Your task to perform on an android device: change the clock display to digital Image 0: 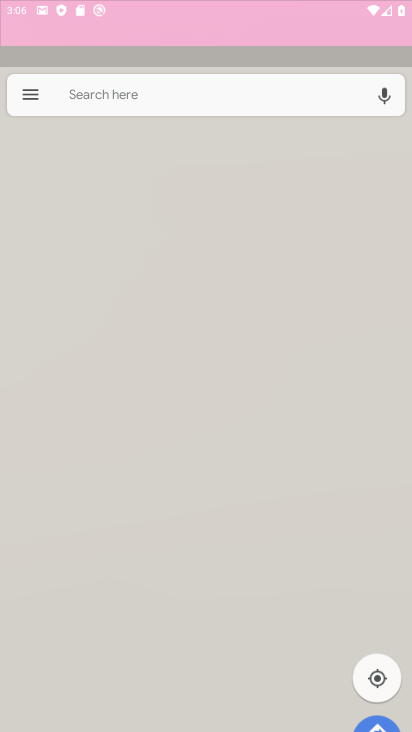
Step 0: click (126, 629)
Your task to perform on an android device: change the clock display to digital Image 1: 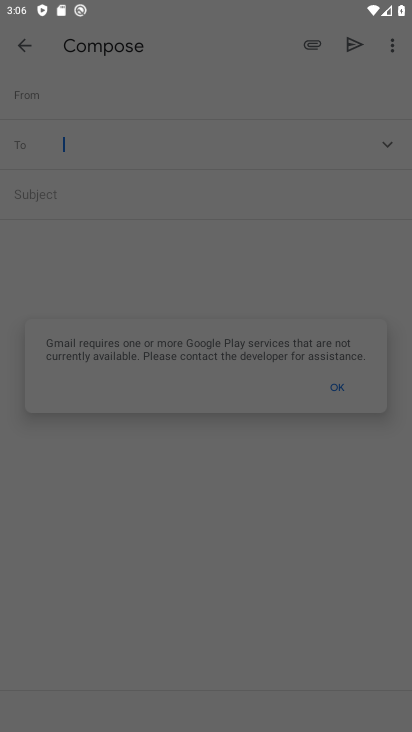
Step 1: press back button
Your task to perform on an android device: change the clock display to digital Image 2: 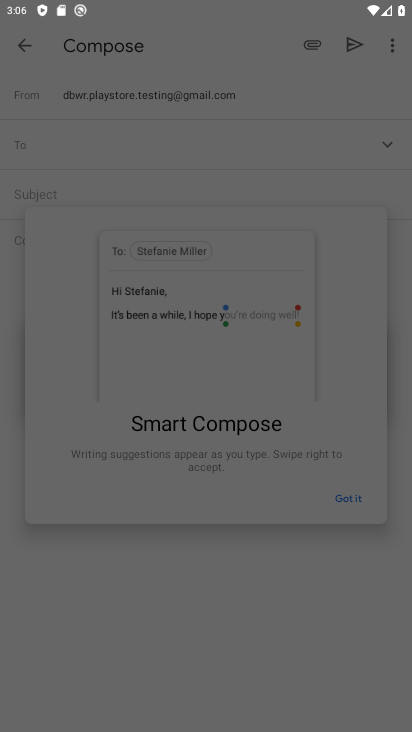
Step 2: press home button
Your task to perform on an android device: change the clock display to digital Image 3: 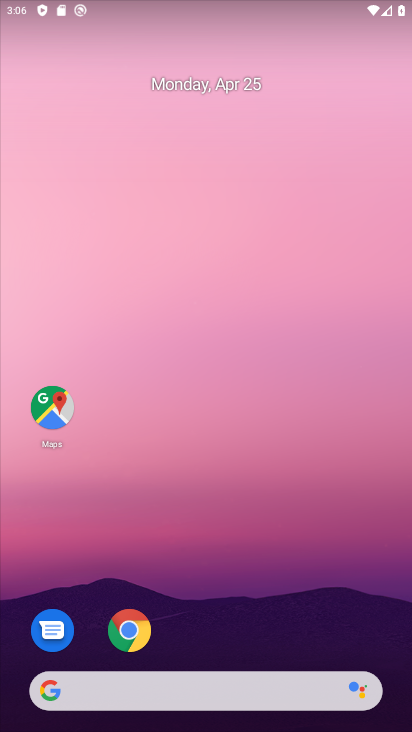
Step 3: drag from (165, 651) to (178, 225)
Your task to perform on an android device: change the clock display to digital Image 4: 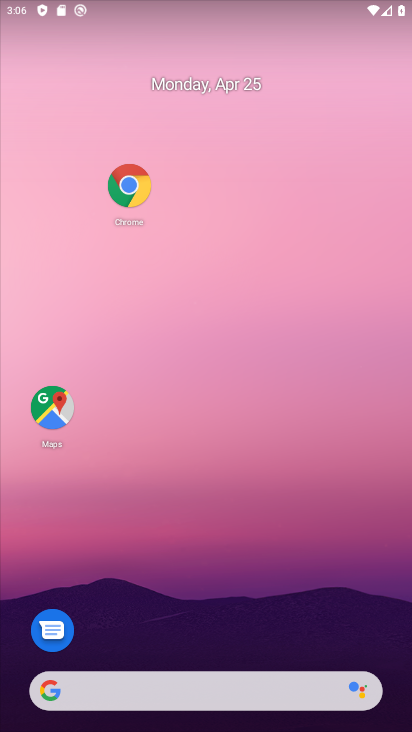
Step 4: drag from (206, 649) to (97, 2)
Your task to perform on an android device: change the clock display to digital Image 5: 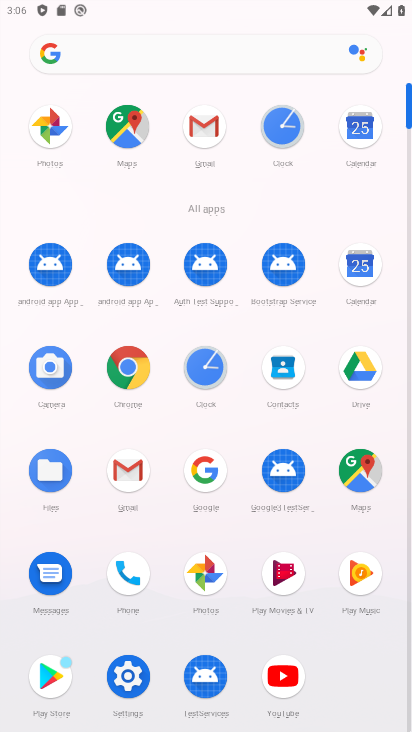
Step 5: click (199, 367)
Your task to perform on an android device: change the clock display to digital Image 6: 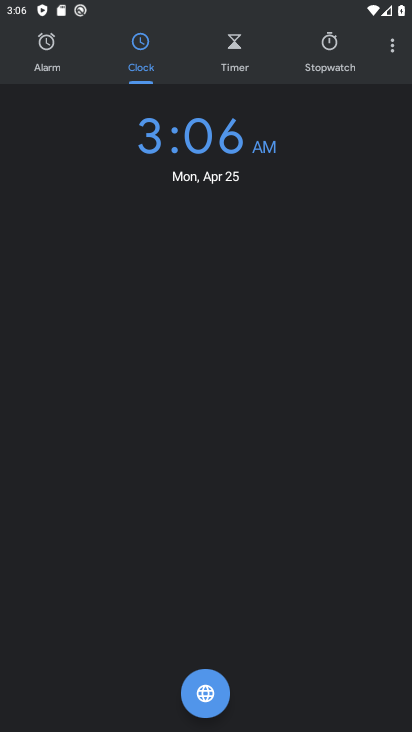
Step 6: click (393, 50)
Your task to perform on an android device: change the clock display to digital Image 7: 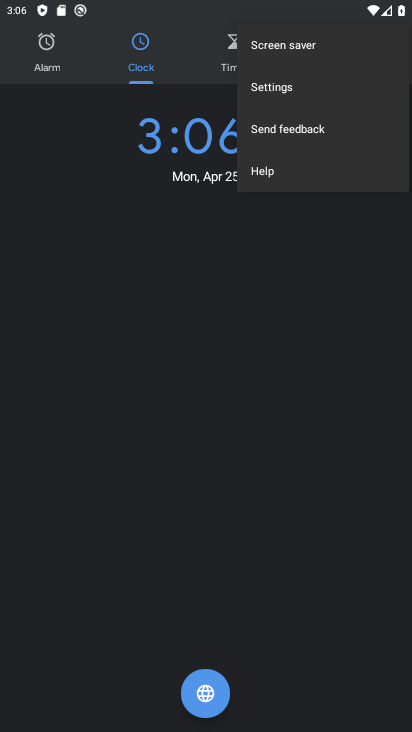
Step 7: click (356, 90)
Your task to perform on an android device: change the clock display to digital Image 8: 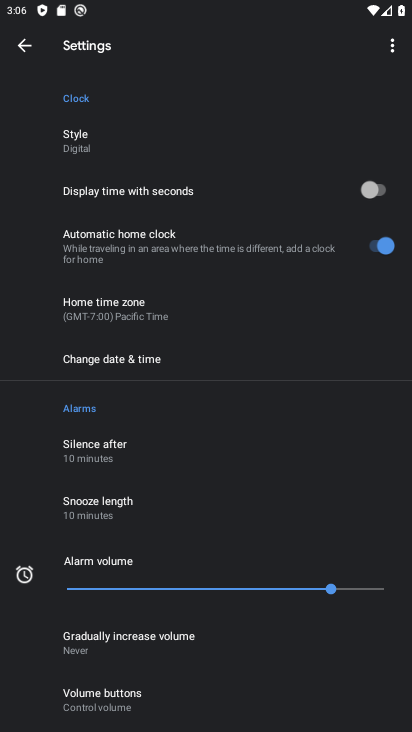
Step 8: drag from (115, 659) to (137, 336)
Your task to perform on an android device: change the clock display to digital Image 9: 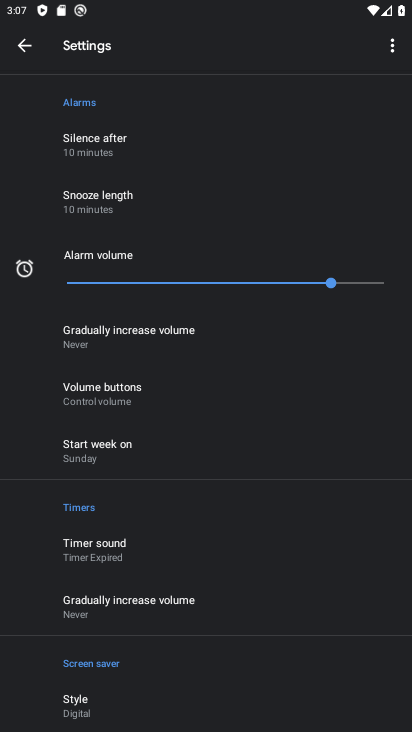
Step 9: drag from (125, 619) to (120, 364)
Your task to perform on an android device: change the clock display to digital Image 10: 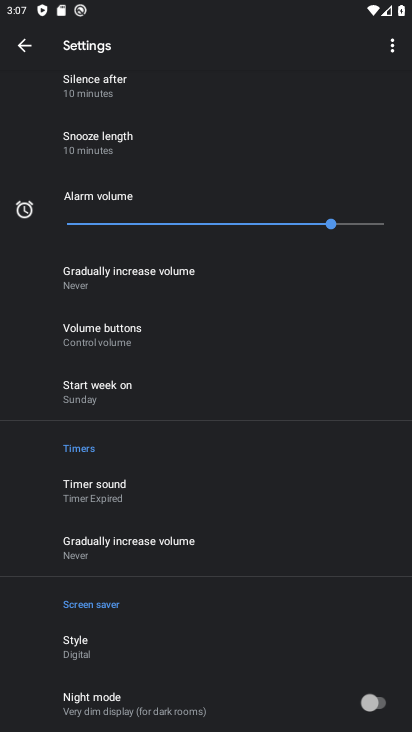
Step 10: click (103, 650)
Your task to perform on an android device: change the clock display to digital Image 11: 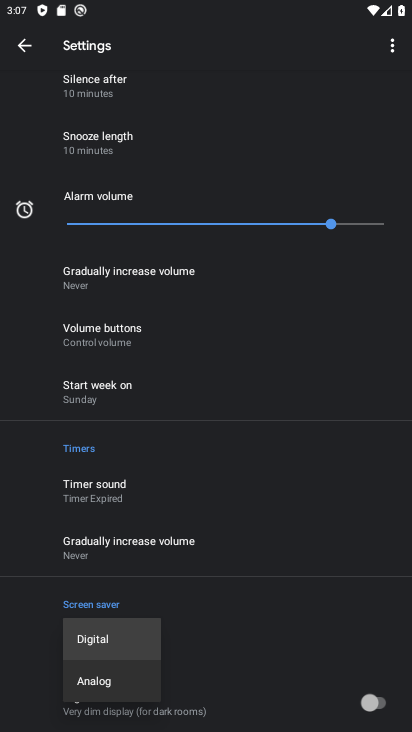
Step 11: click (115, 651)
Your task to perform on an android device: change the clock display to digital Image 12: 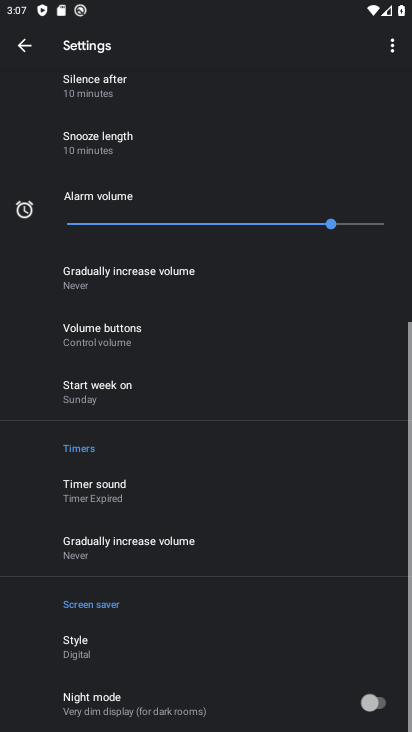
Step 12: task complete